Your task to perform on an android device: Go to CNN.com Image 0: 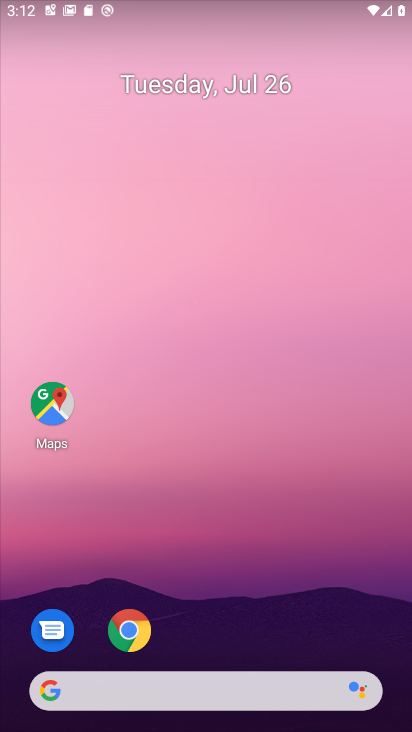
Step 0: click (116, 644)
Your task to perform on an android device: Go to CNN.com Image 1: 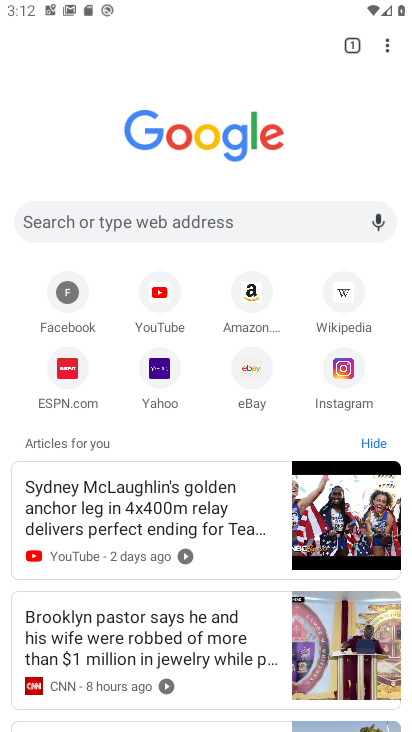
Step 1: click (101, 636)
Your task to perform on an android device: Go to CNN.com Image 2: 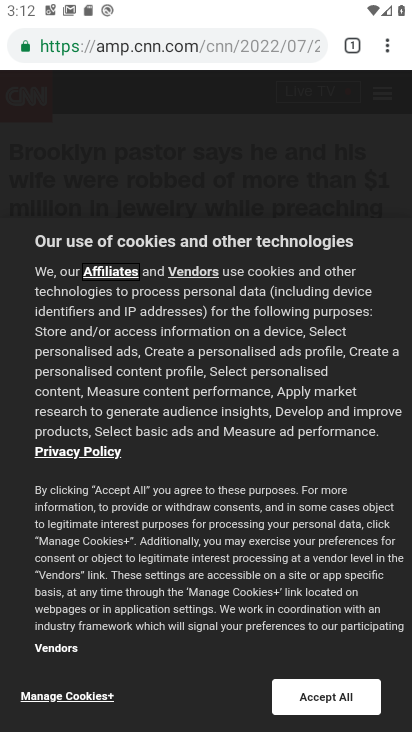
Step 2: task complete